Your task to perform on an android device: turn on the 12-hour format for clock Image 0: 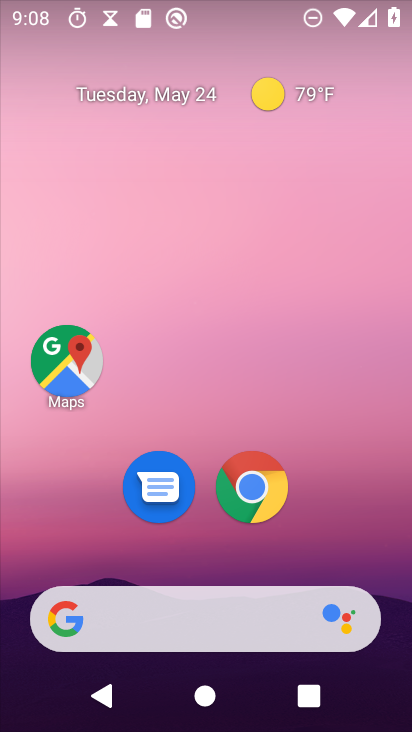
Step 0: drag from (66, 544) to (293, 148)
Your task to perform on an android device: turn on the 12-hour format for clock Image 1: 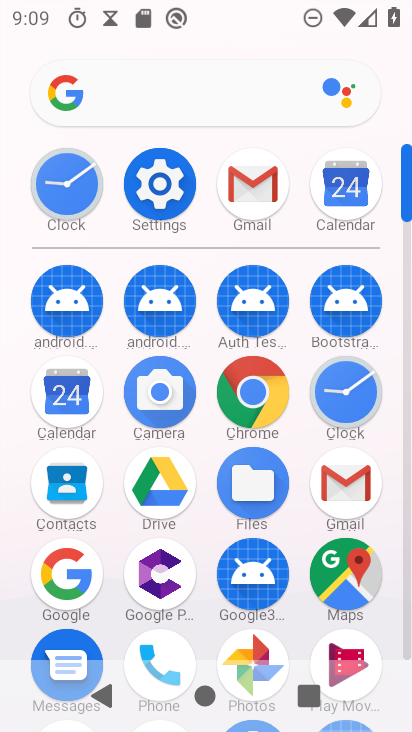
Step 1: click (353, 387)
Your task to perform on an android device: turn on the 12-hour format for clock Image 2: 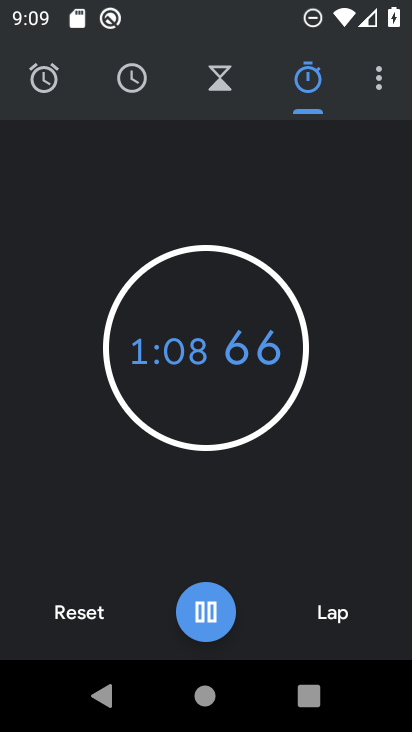
Step 2: click (372, 72)
Your task to perform on an android device: turn on the 12-hour format for clock Image 3: 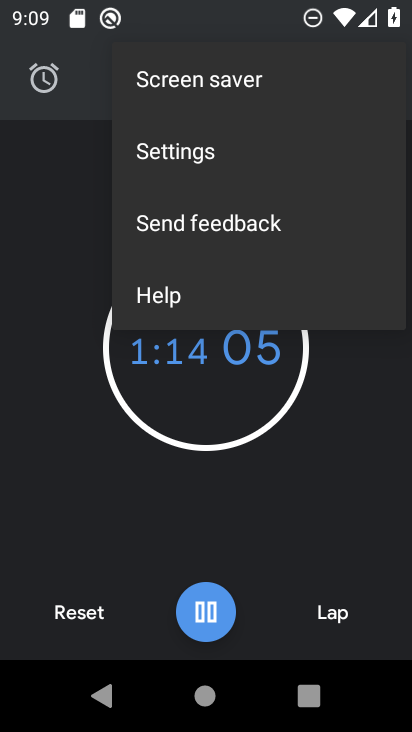
Step 3: click (209, 149)
Your task to perform on an android device: turn on the 12-hour format for clock Image 4: 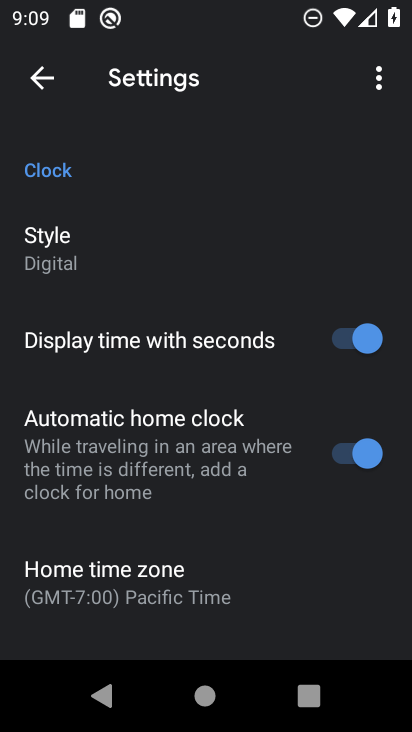
Step 4: drag from (97, 606) to (221, 146)
Your task to perform on an android device: turn on the 12-hour format for clock Image 5: 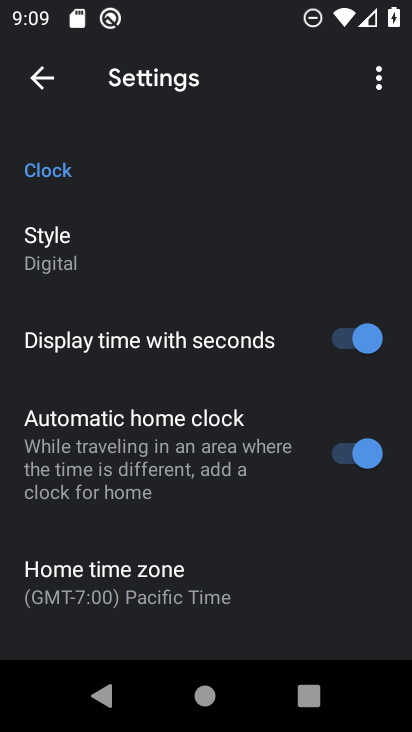
Step 5: drag from (35, 466) to (155, 266)
Your task to perform on an android device: turn on the 12-hour format for clock Image 6: 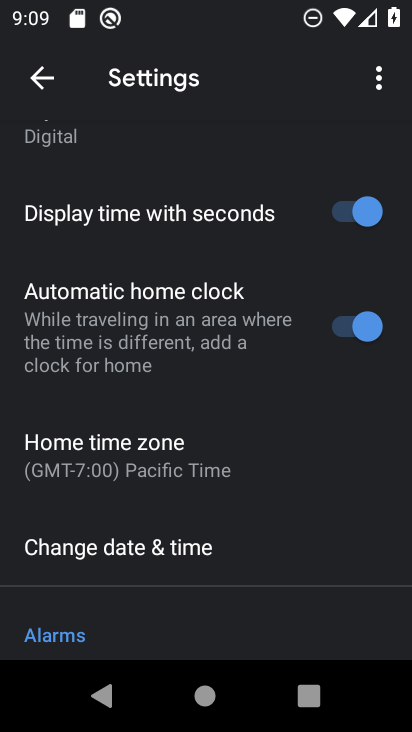
Step 6: click (132, 555)
Your task to perform on an android device: turn on the 12-hour format for clock Image 7: 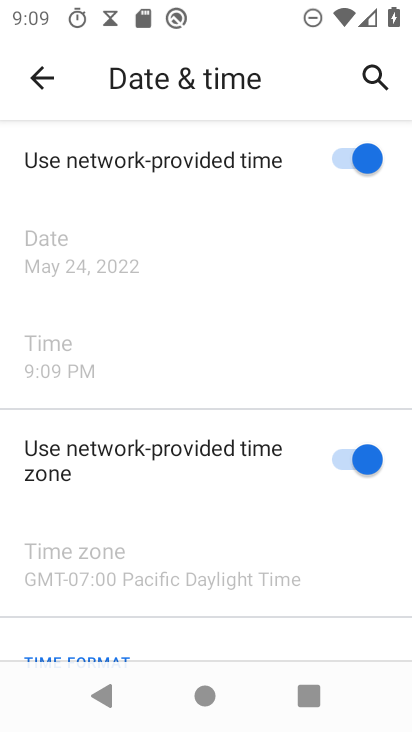
Step 7: task complete